Your task to perform on an android device: Show me the alarms in the clock app Image 0: 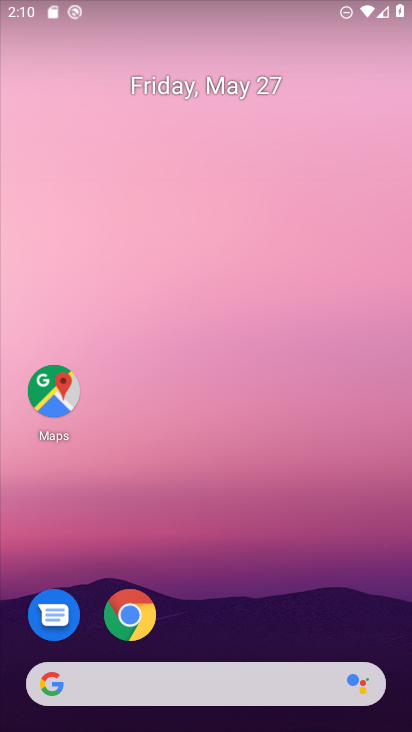
Step 0: drag from (274, 597) to (332, 122)
Your task to perform on an android device: Show me the alarms in the clock app Image 1: 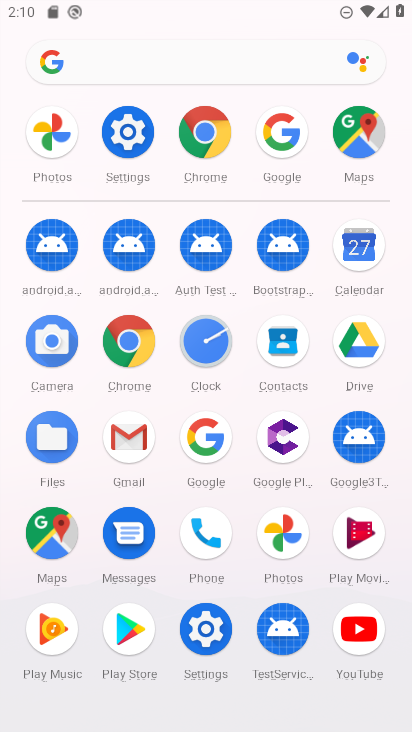
Step 1: click (208, 346)
Your task to perform on an android device: Show me the alarms in the clock app Image 2: 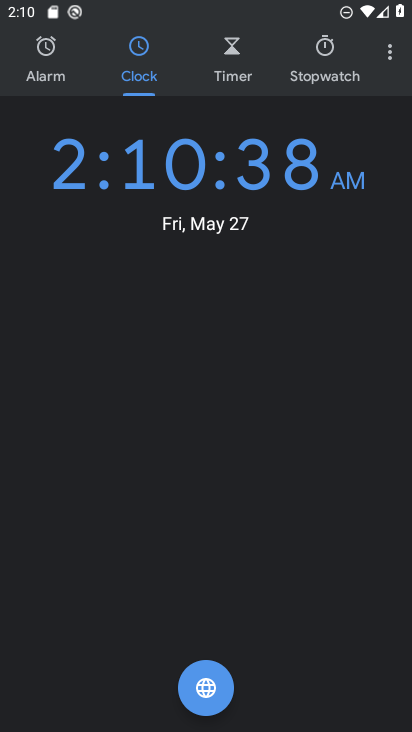
Step 2: click (54, 72)
Your task to perform on an android device: Show me the alarms in the clock app Image 3: 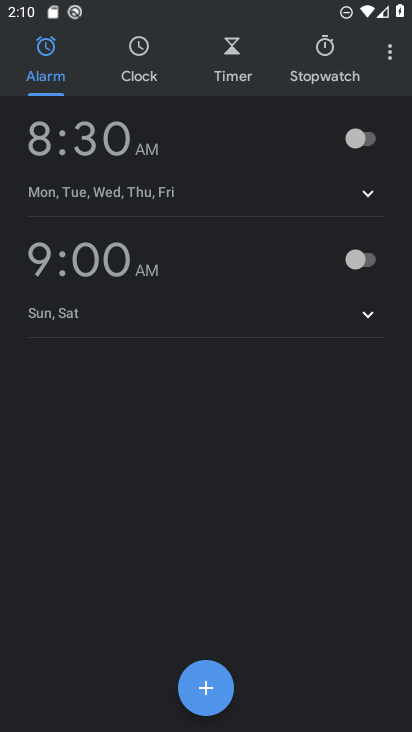
Step 3: task complete